Your task to perform on an android device: Search for the best vacuum on Amazon. Image 0: 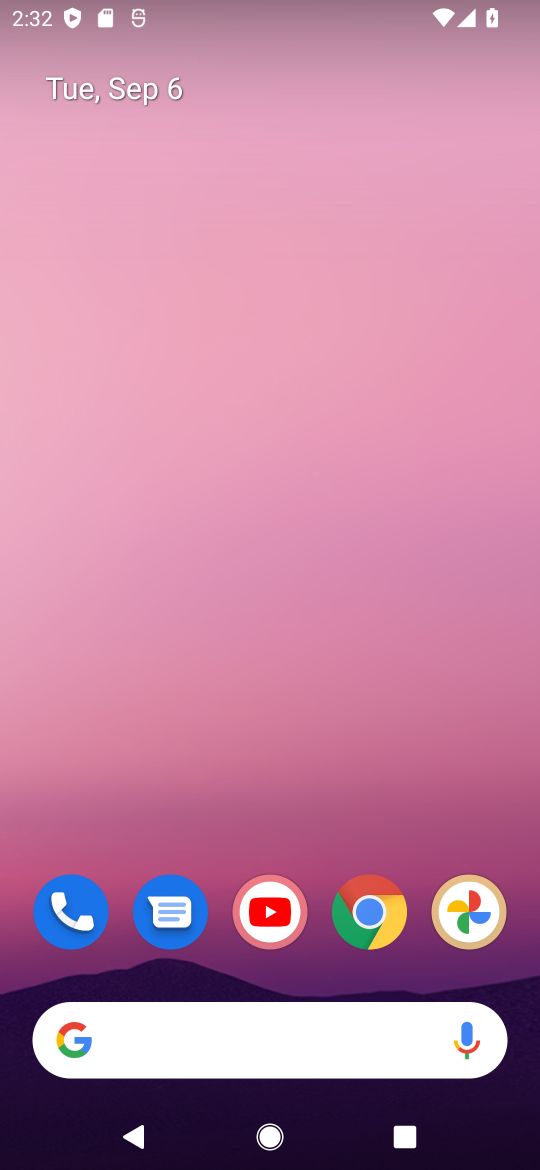
Step 0: drag from (336, 834) to (538, 997)
Your task to perform on an android device: Search for the best vacuum on Amazon. Image 1: 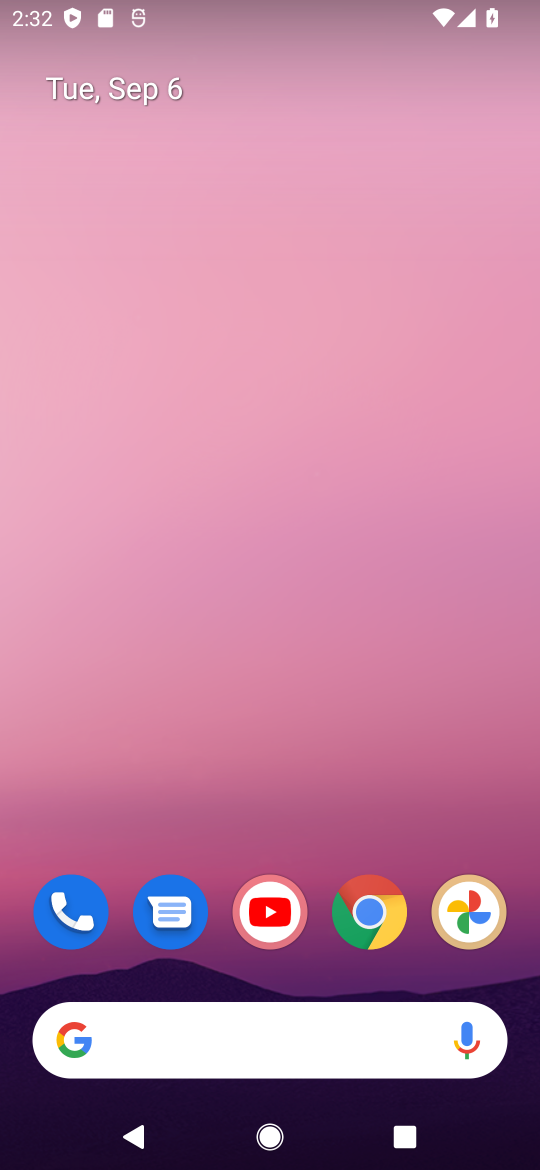
Step 1: click (372, 922)
Your task to perform on an android device: Search for the best vacuum on Amazon. Image 2: 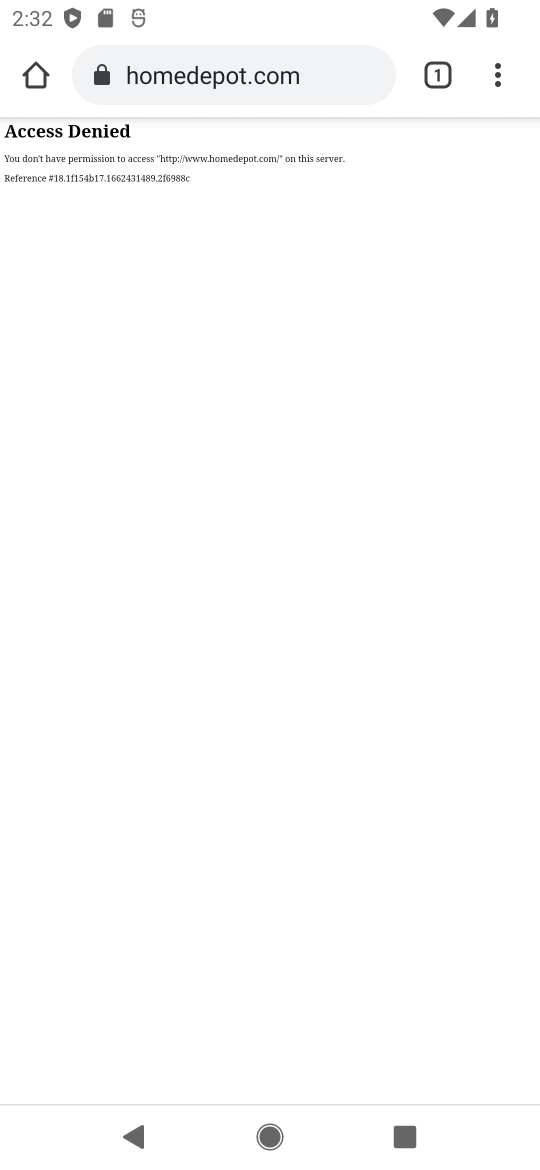
Step 2: task complete